Your task to perform on an android device: remove spam from my inbox in the gmail app Image 0: 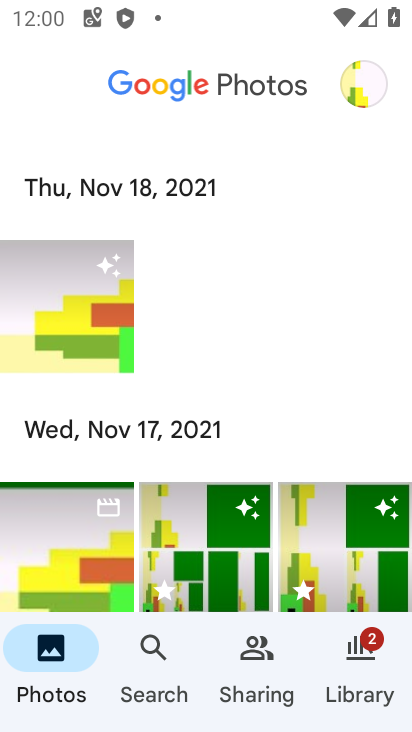
Step 0: press home button
Your task to perform on an android device: remove spam from my inbox in the gmail app Image 1: 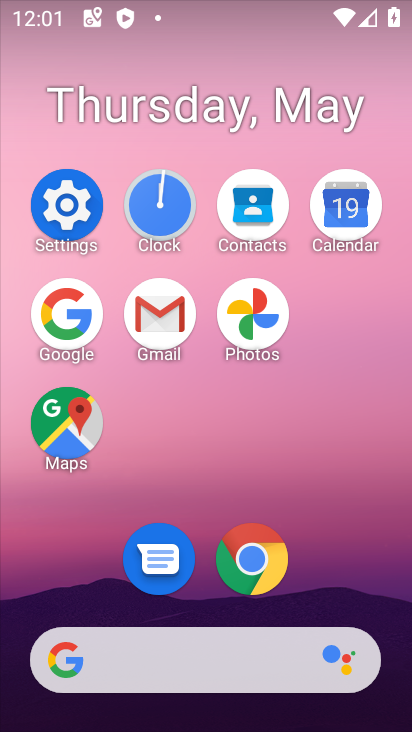
Step 1: click (156, 323)
Your task to perform on an android device: remove spam from my inbox in the gmail app Image 2: 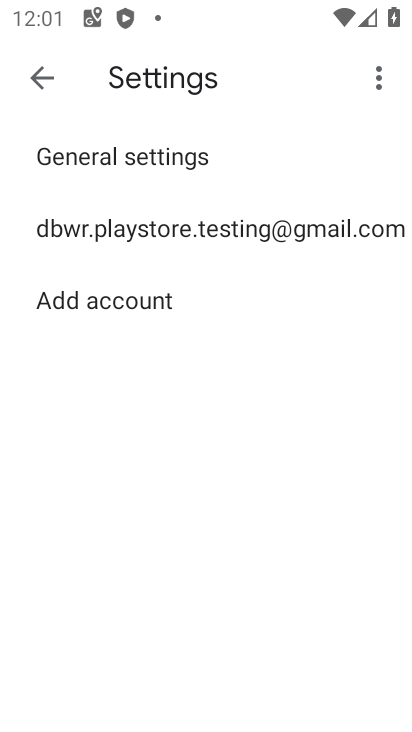
Step 2: click (46, 94)
Your task to perform on an android device: remove spam from my inbox in the gmail app Image 3: 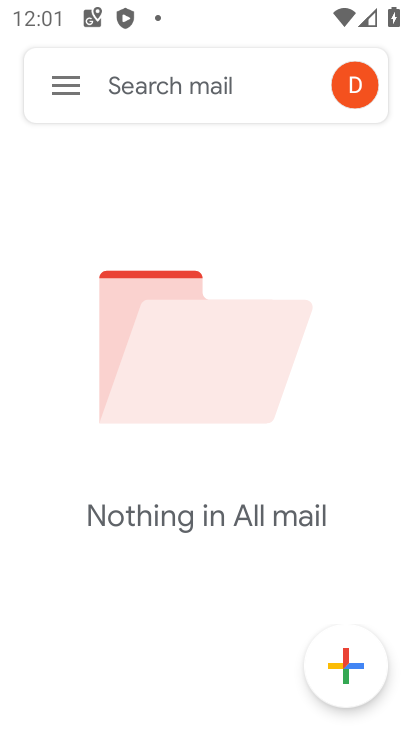
Step 3: click (77, 102)
Your task to perform on an android device: remove spam from my inbox in the gmail app Image 4: 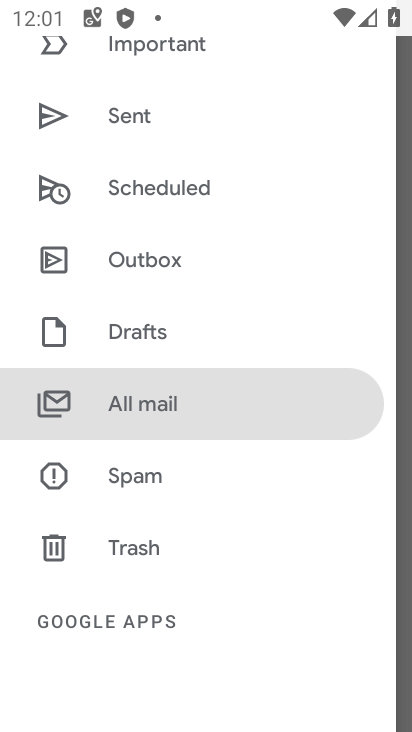
Step 4: click (153, 486)
Your task to perform on an android device: remove spam from my inbox in the gmail app Image 5: 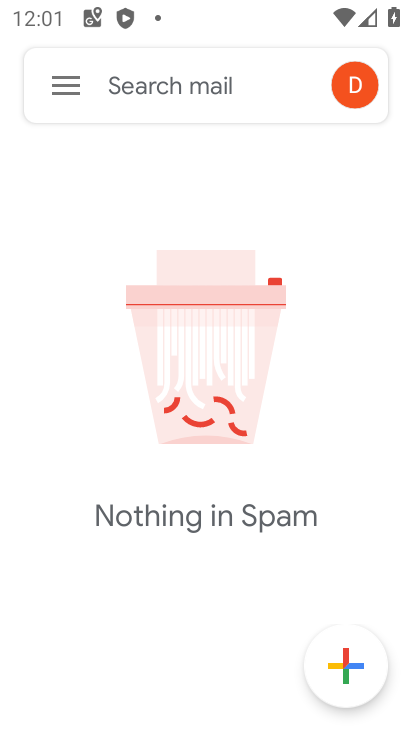
Step 5: task complete